Your task to perform on an android device: add a label to a message in the gmail app Image 0: 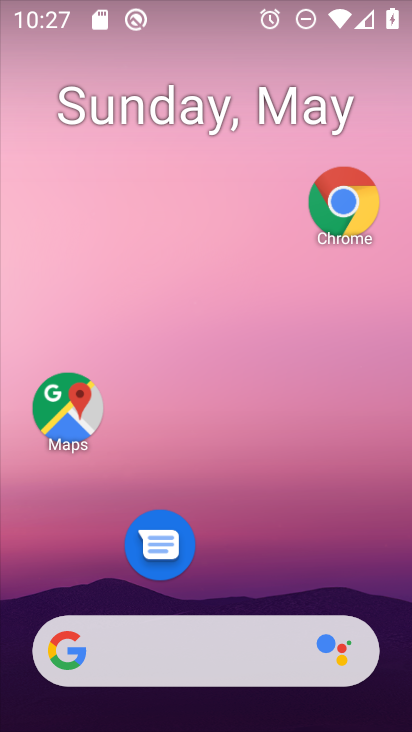
Step 0: drag from (296, 598) to (372, 36)
Your task to perform on an android device: add a label to a message in the gmail app Image 1: 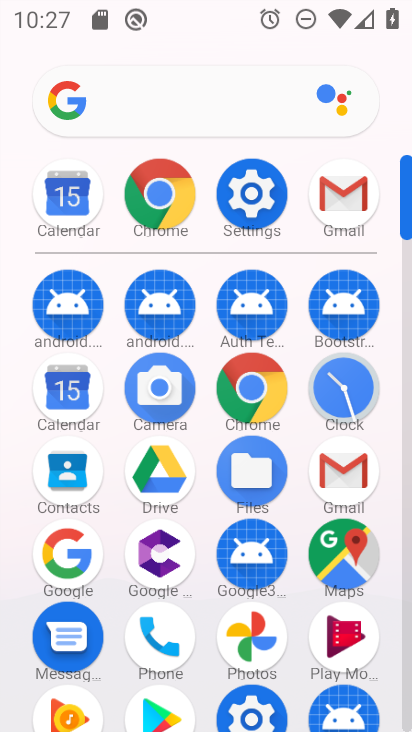
Step 1: click (351, 474)
Your task to perform on an android device: add a label to a message in the gmail app Image 2: 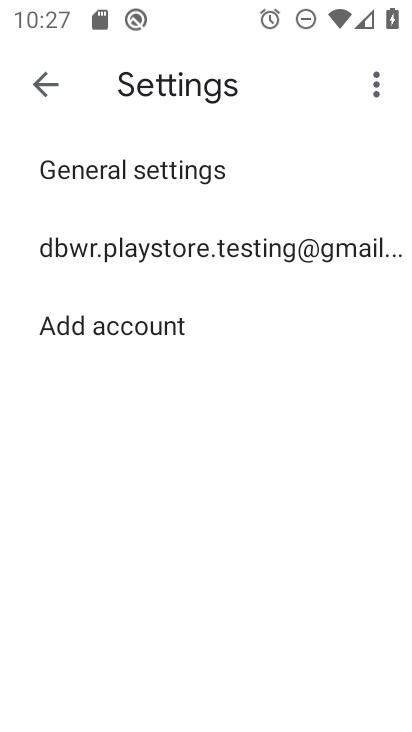
Step 2: click (48, 77)
Your task to perform on an android device: add a label to a message in the gmail app Image 3: 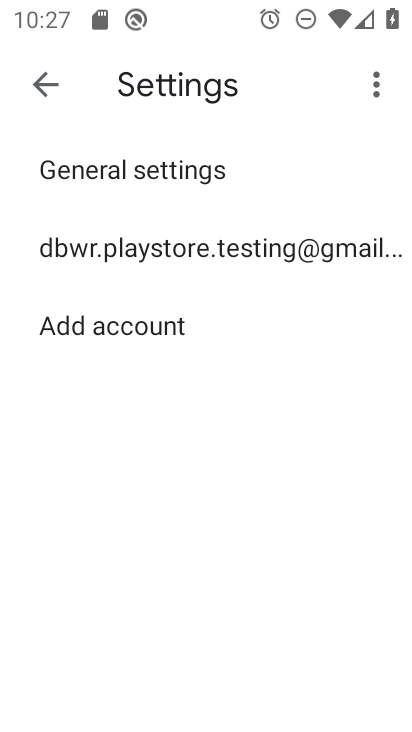
Step 3: click (59, 94)
Your task to perform on an android device: add a label to a message in the gmail app Image 4: 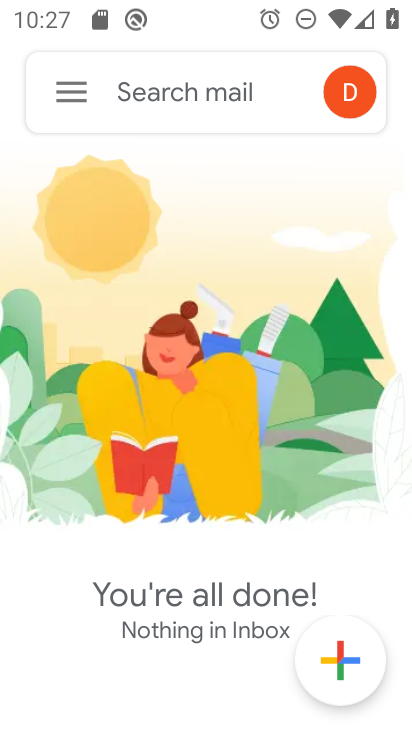
Step 4: click (67, 101)
Your task to perform on an android device: add a label to a message in the gmail app Image 5: 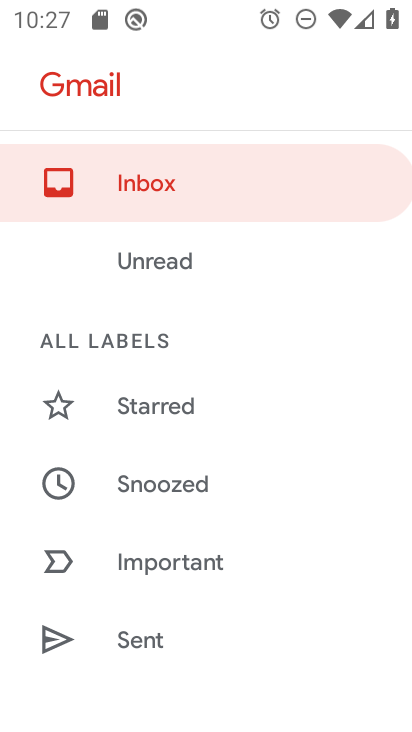
Step 5: drag from (193, 541) to (229, 242)
Your task to perform on an android device: add a label to a message in the gmail app Image 6: 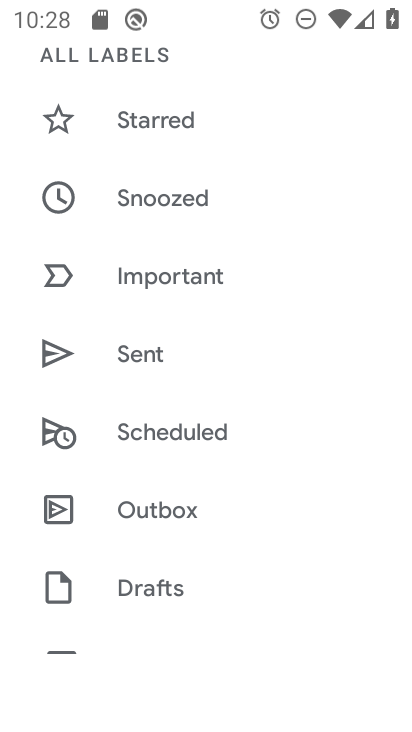
Step 6: drag from (264, 597) to (277, 296)
Your task to perform on an android device: add a label to a message in the gmail app Image 7: 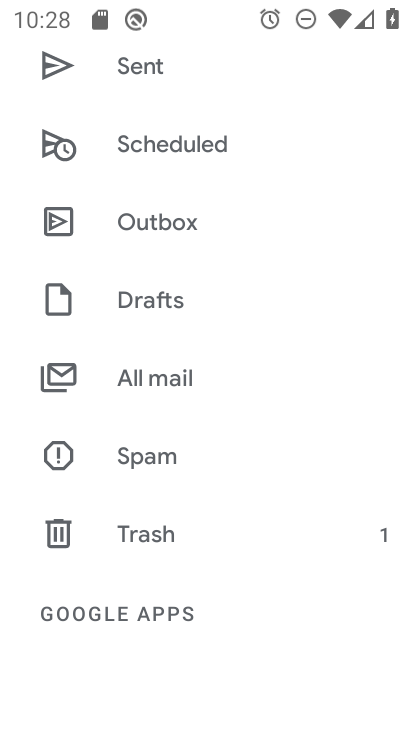
Step 7: drag from (231, 561) to (272, 316)
Your task to perform on an android device: add a label to a message in the gmail app Image 8: 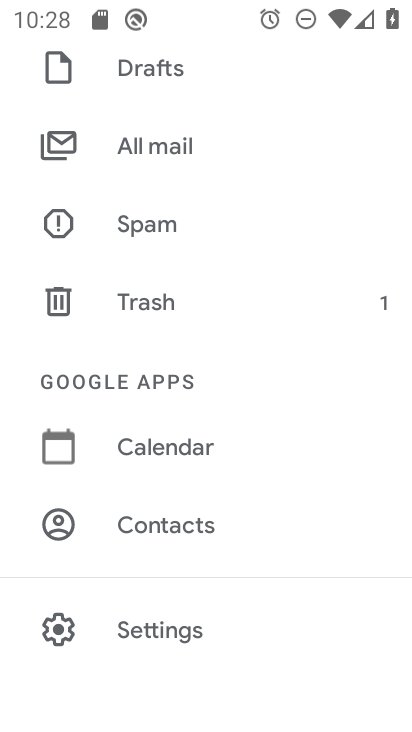
Step 8: click (176, 153)
Your task to perform on an android device: add a label to a message in the gmail app Image 9: 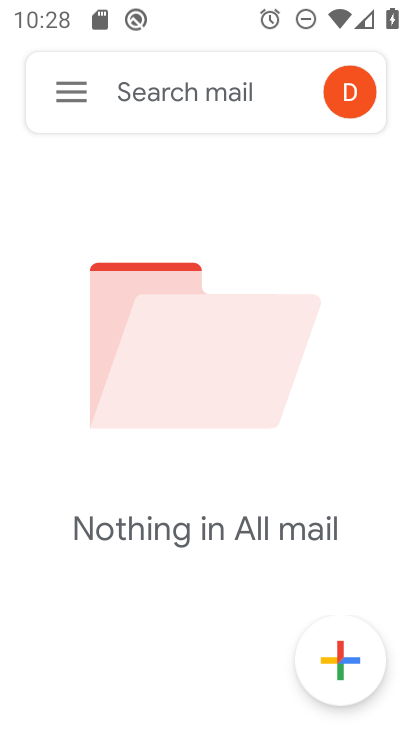
Step 9: task complete